Your task to perform on an android device: set an alarm Image 0: 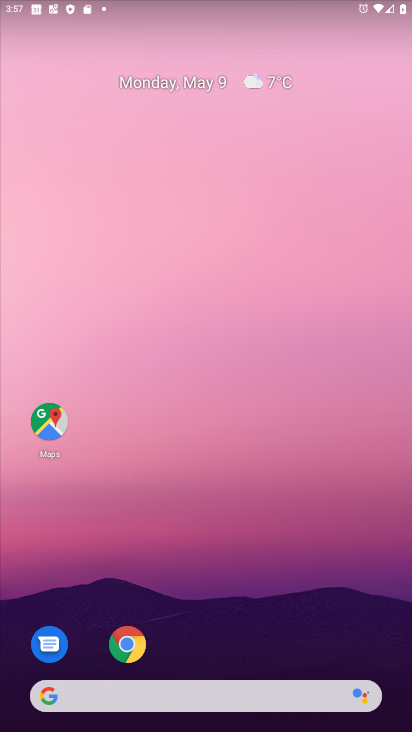
Step 0: click (202, 50)
Your task to perform on an android device: set an alarm Image 1: 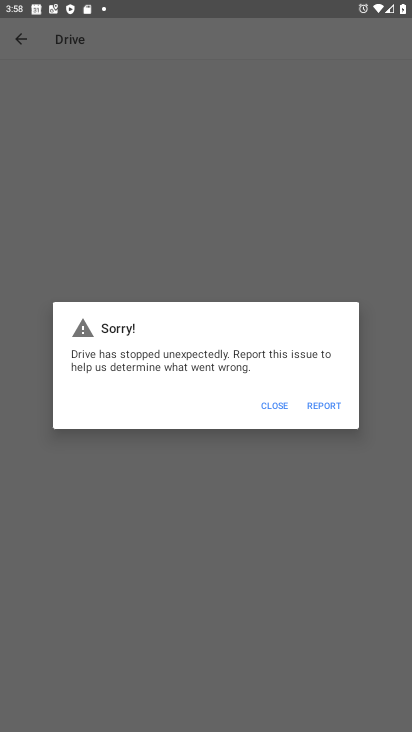
Step 1: click (279, 406)
Your task to perform on an android device: set an alarm Image 2: 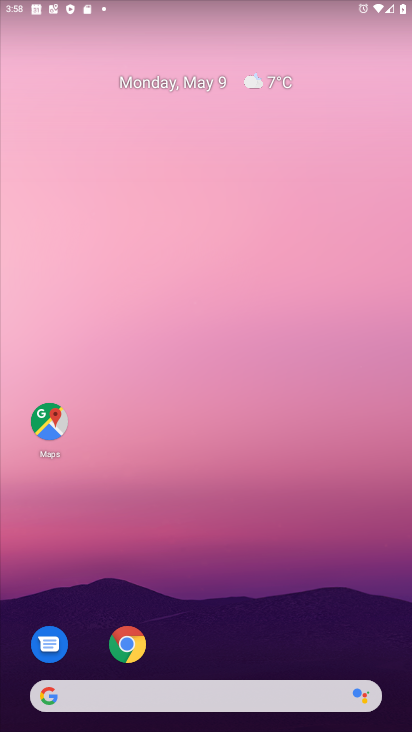
Step 2: drag from (241, 715) to (36, 33)
Your task to perform on an android device: set an alarm Image 3: 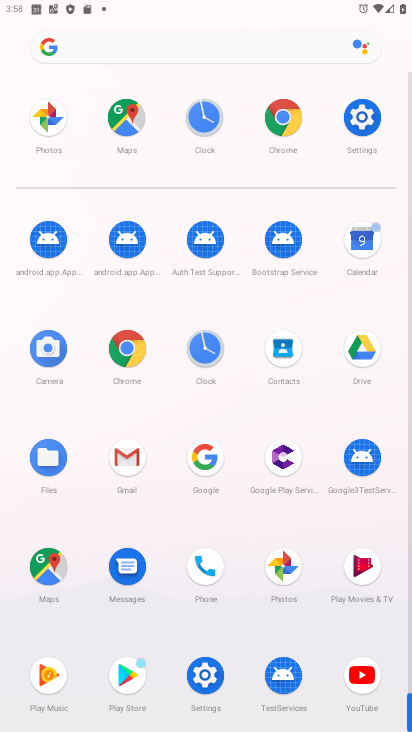
Step 3: click (199, 123)
Your task to perform on an android device: set an alarm Image 4: 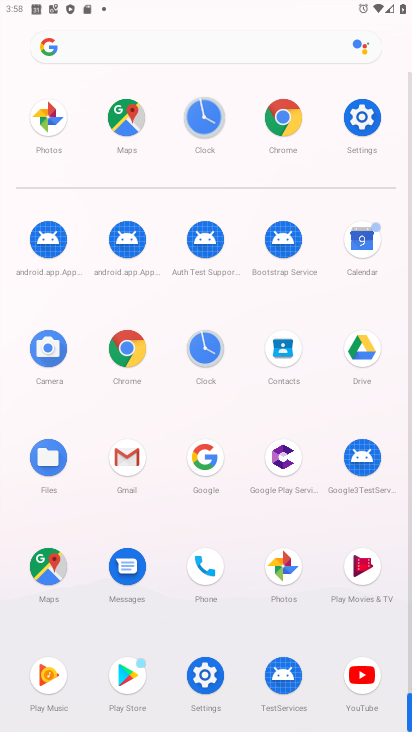
Step 4: click (202, 122)
Your task to perform on an android device: set an alarm Image 5: 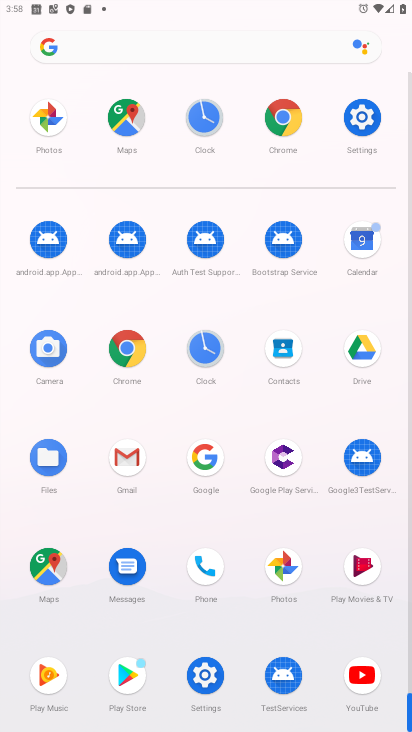
Step 5: click (203, 352)
Your task to perform on an android device: set an alarm Image 6: 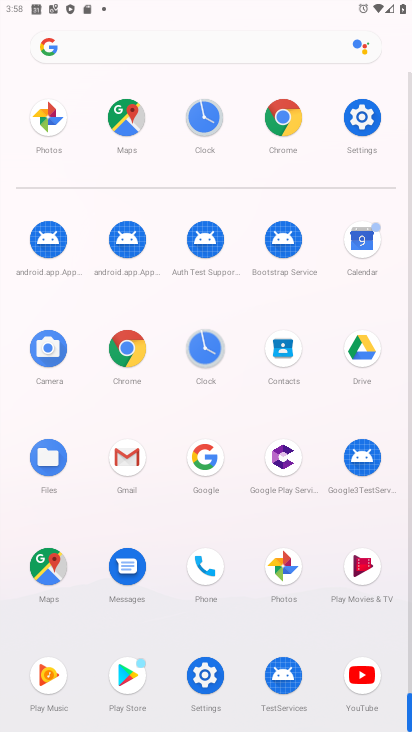
Step 6: click (204, 353)
Your task to perform on an android device: set an alarm Image 7: 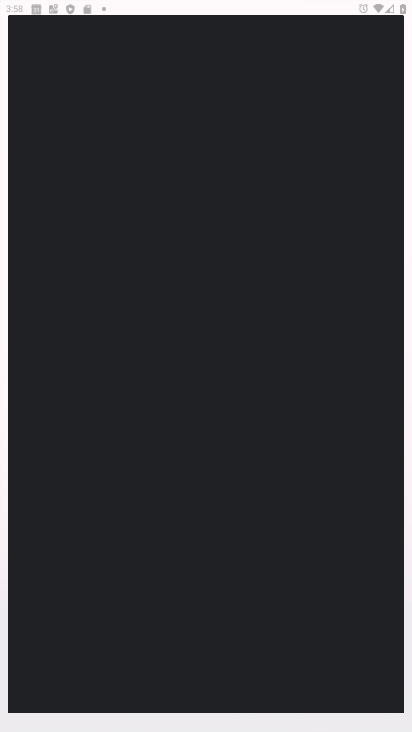
Step 7: click (202, 352)
Your task to perform on an android device: set an alarm Image 8: 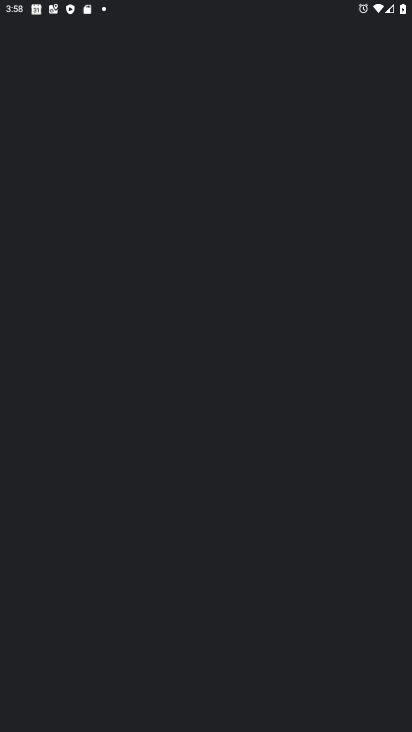
Step 8: click (202, 359)
Your task to perform on an android device: set an alarm Image 9: 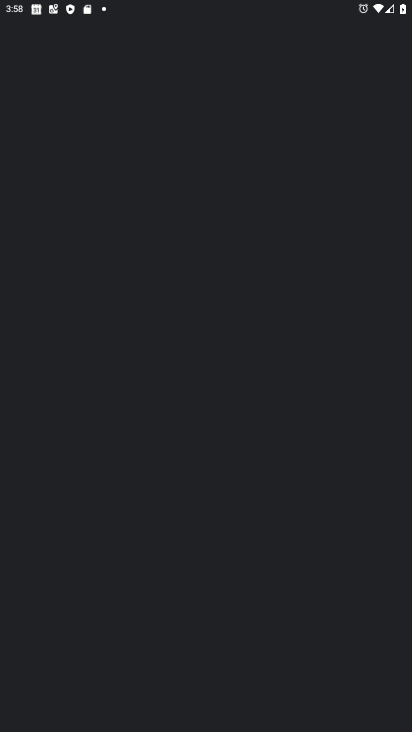
Step 9: click (199, 370)
Your task to perform on an android device: set an alarm Image 10: 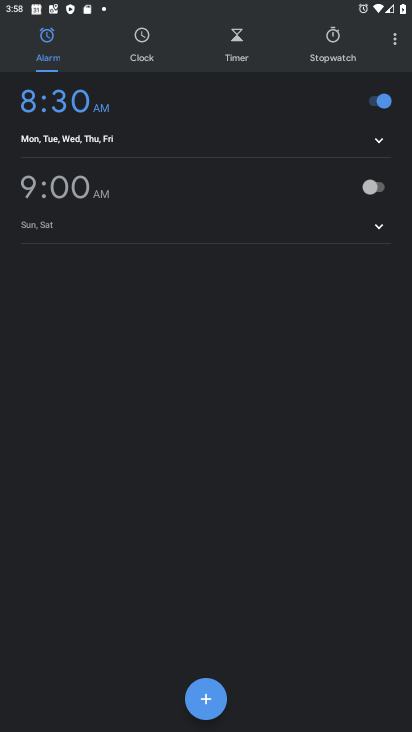
Step 10: click (374, 183)
Your task to perform on an android device: set an alarm Image 11: 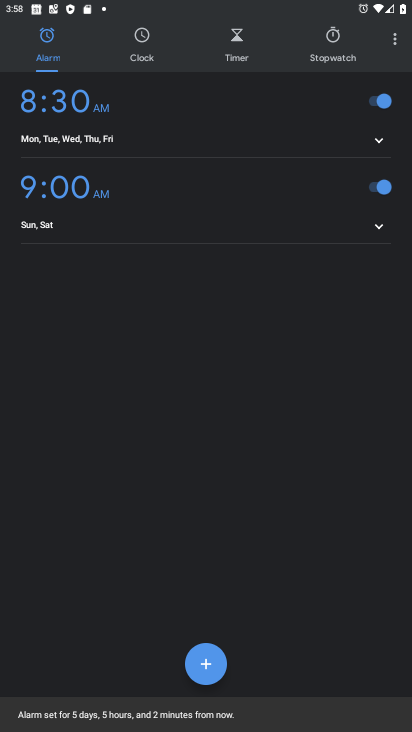
Step 11: task complete